Your task to perform on an android device: Open Chrome and go to settings Image 0: 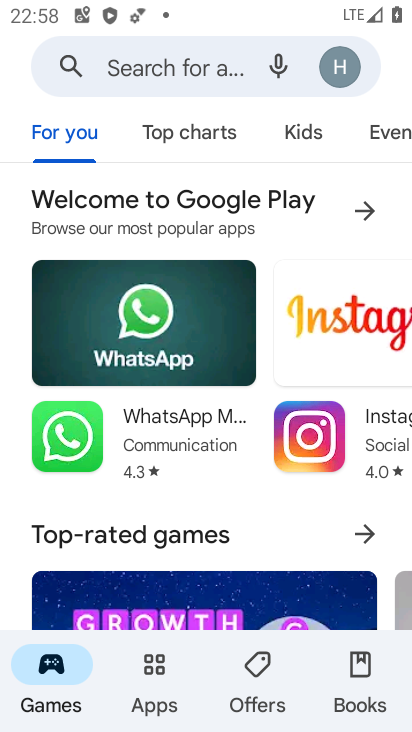
Step 0: press home button
Your task to perform on an android device: Open Chrome and go to settings Image 1: 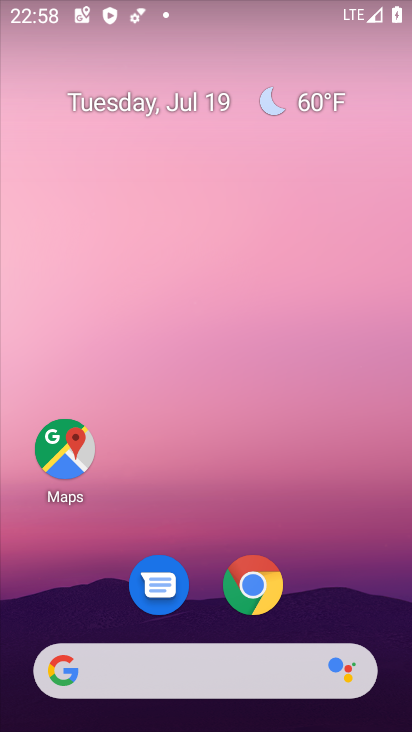
Step 1: click (259, 595)
Your task to perform on an android device: Open Chrome and go to settings Image 2: 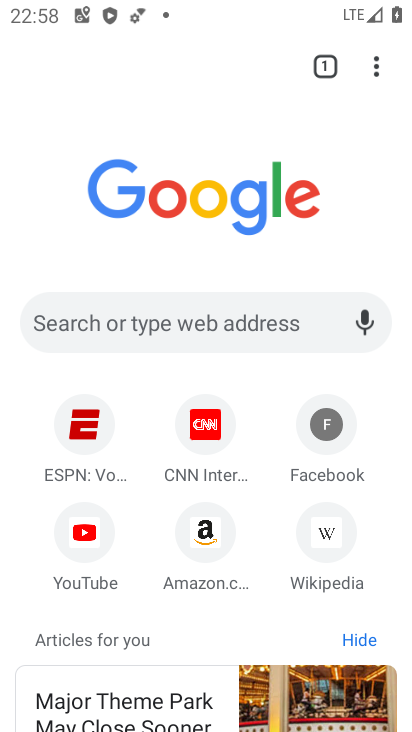
Step 2: click (376, 68)
Your task to perform on an android device: Open Chrome and go to settings Image 3: 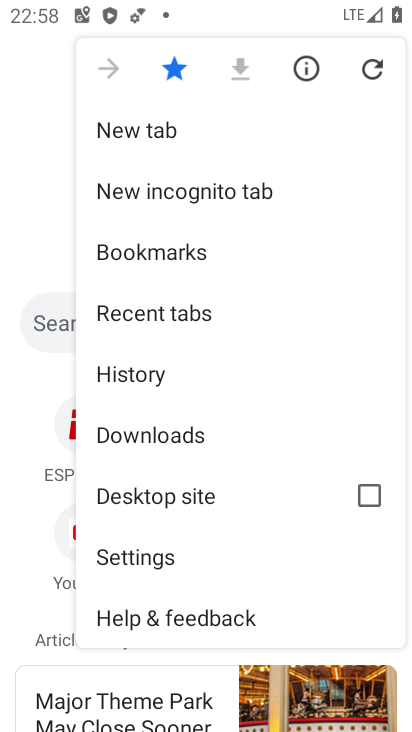
Step 3: click (162, 557)
Your task to perform on an android device: Open Chrome and go to settings Image 4: 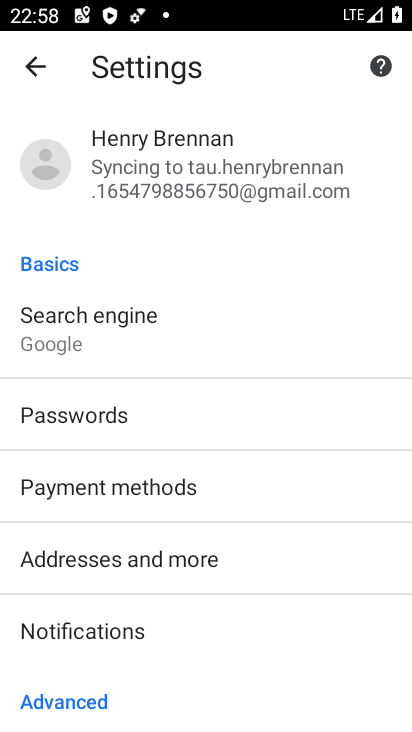
Step 4: task complete